Your task to perform on an android device: Open Yahoo.com Image 0: 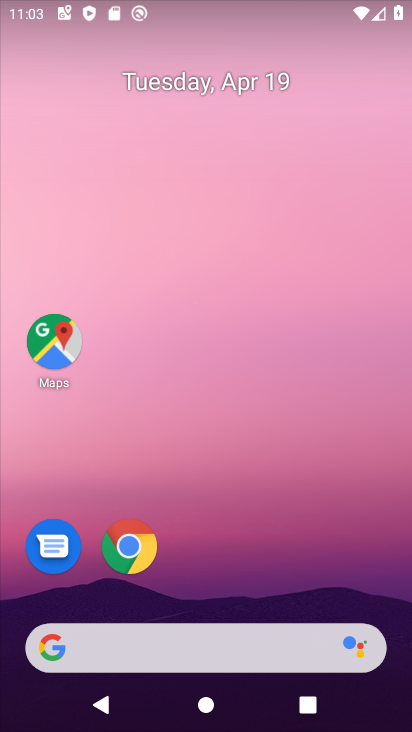
Step 0: drag from (355, 580) to (355, 52)
Your task to perform on an android device: Open Yahoo.com Image 1: 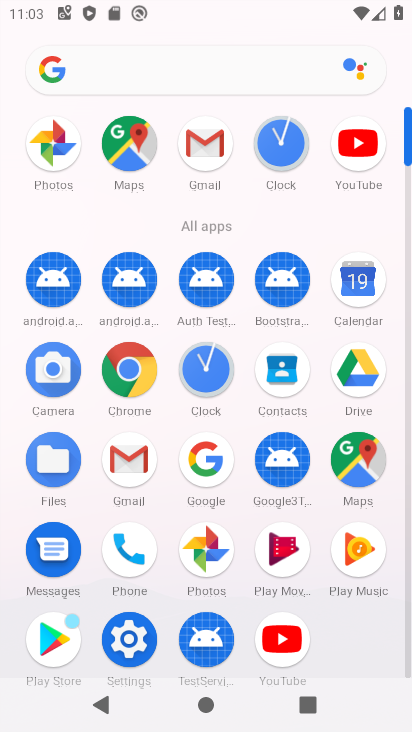
Step 1: drag from (269, 218) to (295, 15)
Your task to perform on an android device: Open Yahoo.com Image 2: 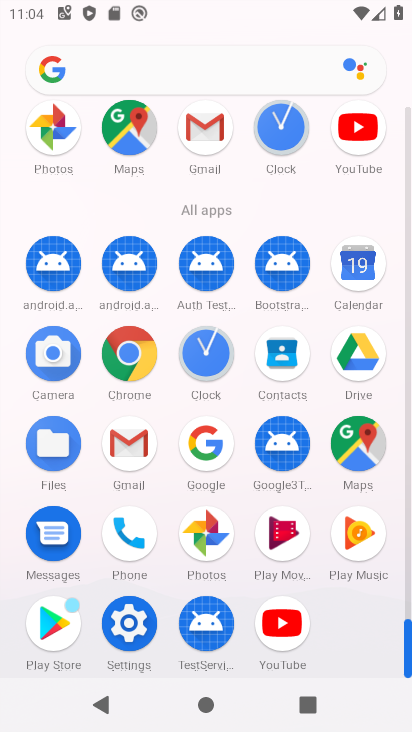
Step 2: click (129, 352)
Your task to perform on an android device: Open Yahoo.com Image 3: 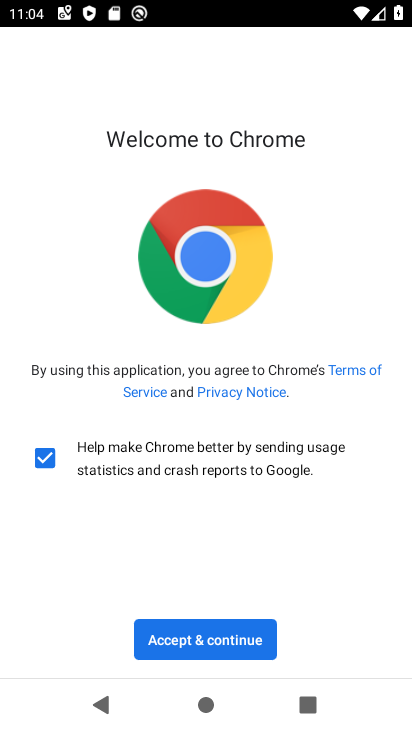
Step 3: click (241, 644)
Your task to perform on an android device: Open Yahoo.com Image 4: 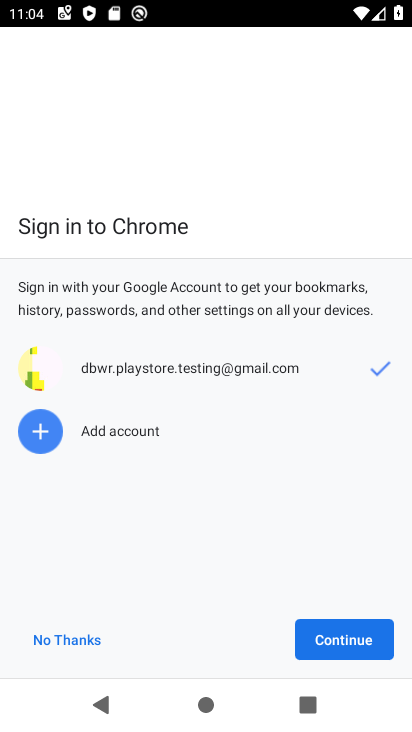
Step 4: click (317, 628)
Your task to perform on an android device: Open Yahoo.com Image 5: 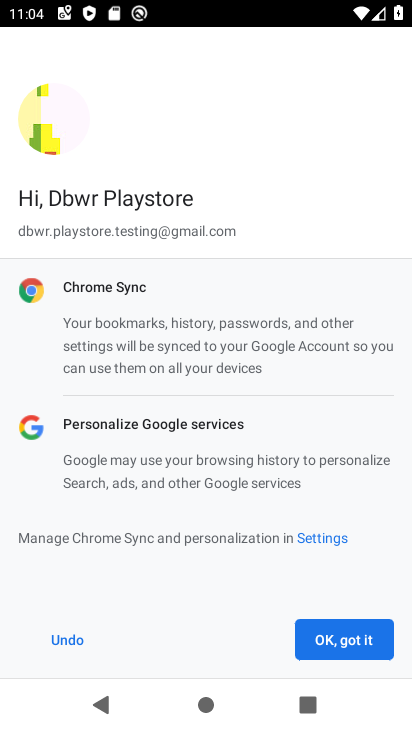
Step 5: click (365, 636)
Your task to perform on an android device: Open Yahoo.com Image 6: 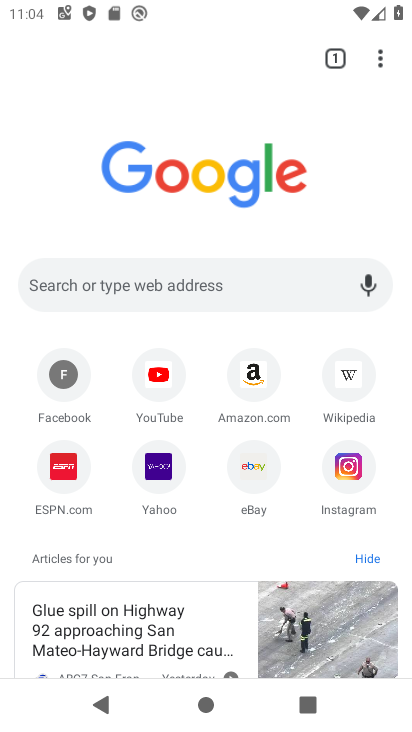
Step 6: click (255, 290)
Your task to perform on an android device: Open Yahoo.com Image 7: 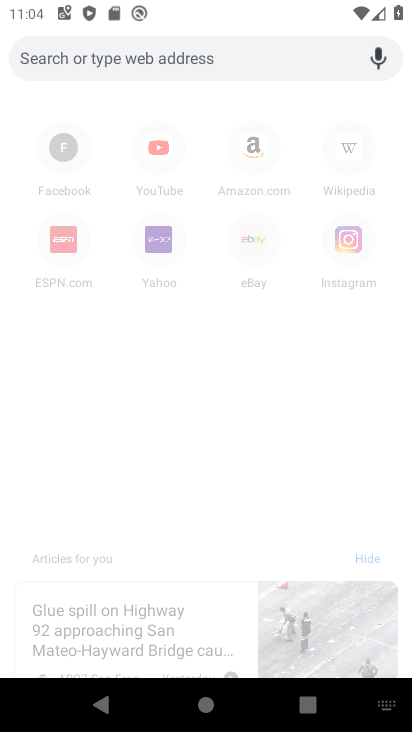
Step 7: type " Yahoo.com"
Your task to perform on an android device: Open Yahoo.com Image 8: 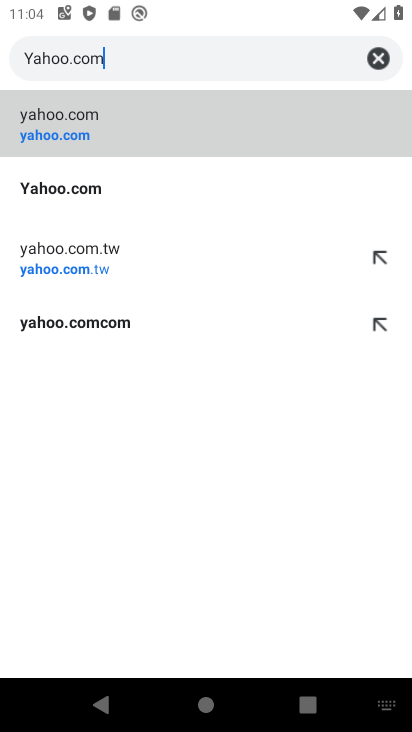
Step 8: click (75, 131)
Your task to perform on an android device: Open Yahoo.com Image 9: 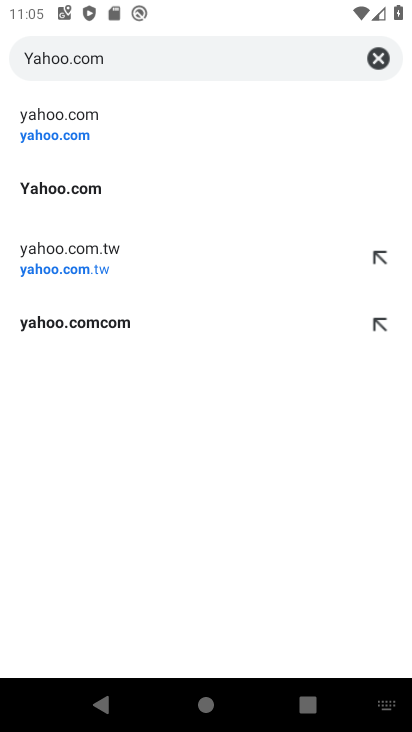
Step 9: click (38, 130)
Your task to perform on an android device: Open Yahoo.com Image 10: 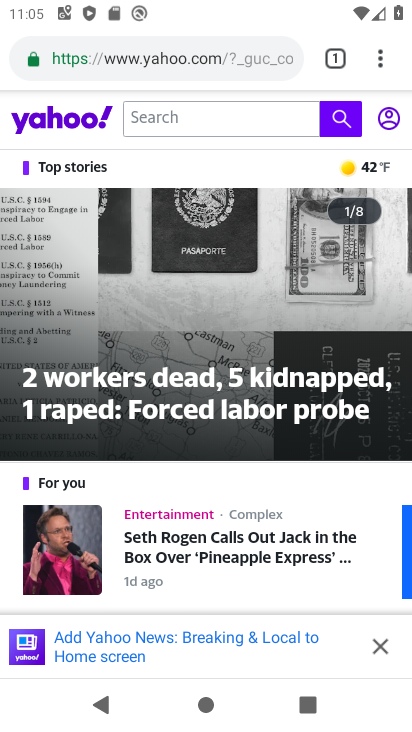
Step 10: task complete